Your task to perform on an android device: change the clock style Image 0: 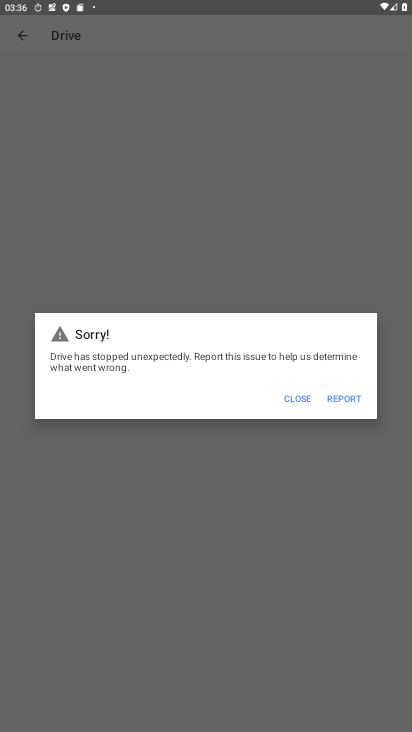
Step 0: press home button
Your task to perform on an android device: change the clock style Image 1: 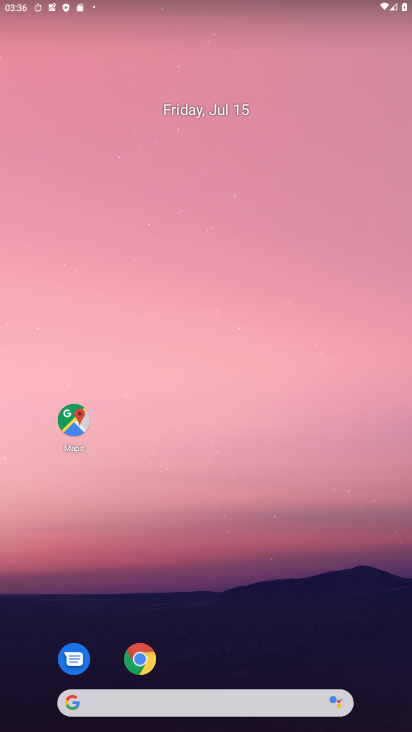
Step 1: drag from (231, 645) to (259, 9)
Your task to perform on an android device: change the clock style Image 2: 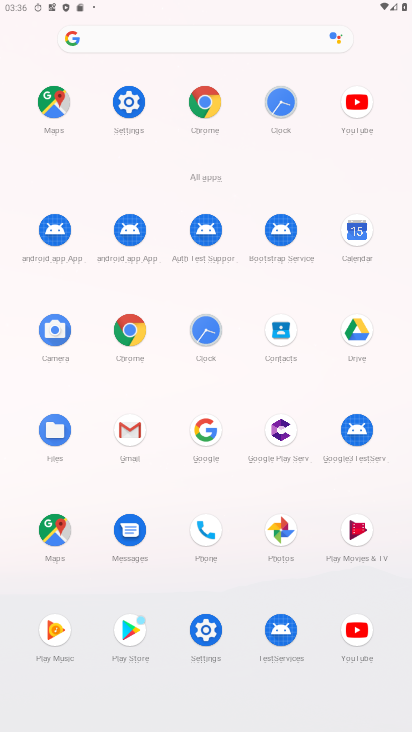
Step 2: click (283, 112)
Your task to perform on an android device: change the clock style Image 3: 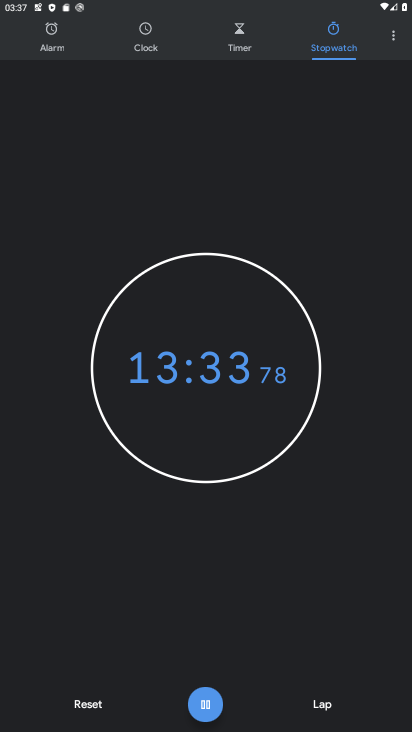
Step 3: click (390, 34)
Your task to perform on an android device: change the clock style Image 4: 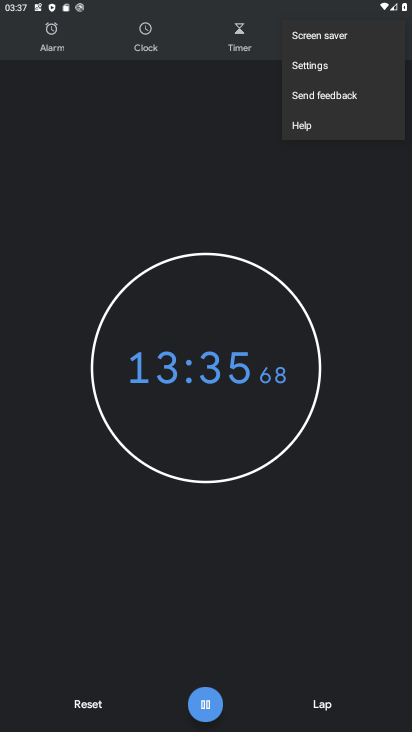
Step 4: click (333, 72)
Your task to perform on an android device: change the clock style Image 5: 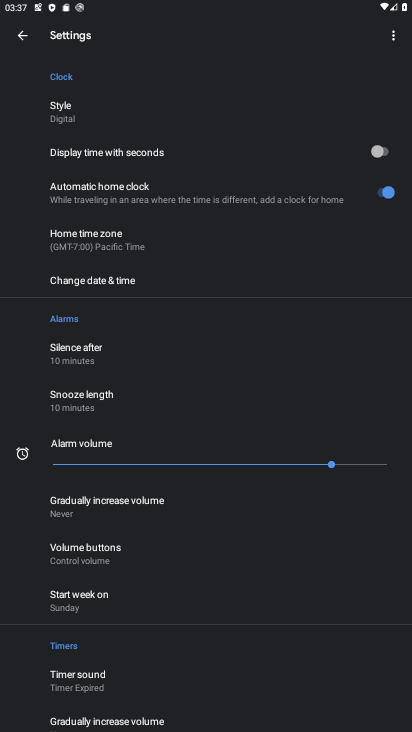
Step 5: click (57, 113)
Your task to perform on an android device: change the clock style Image 6: 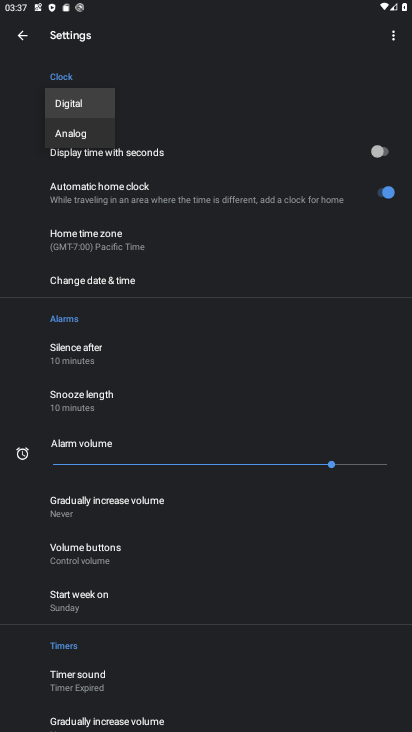
Step 6: click (80, 137)
Your task to perform on an android device: change the clock style Image 7: 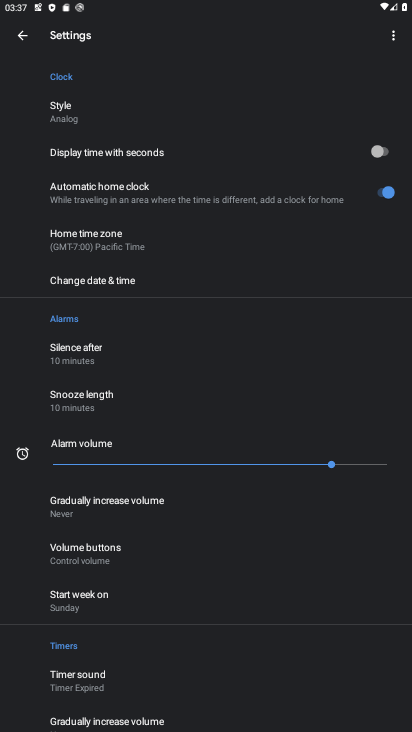
Step 7: task complete